Your task to perform on an android device: change the clock display to show seconds Image 0: 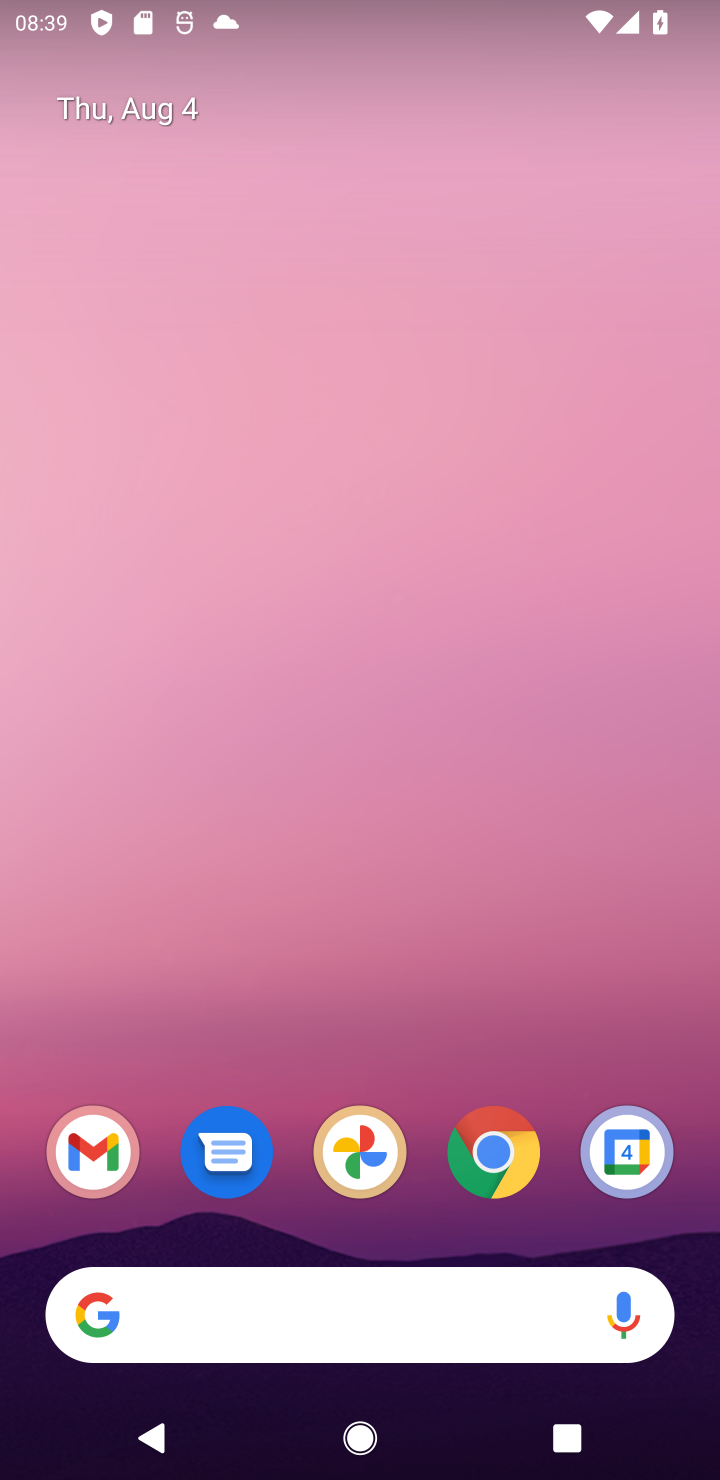
Step 0: drag from (501, 1472) to (540, 108)
Your task to perform on an android device: change the clock display to show seconds Image 1: 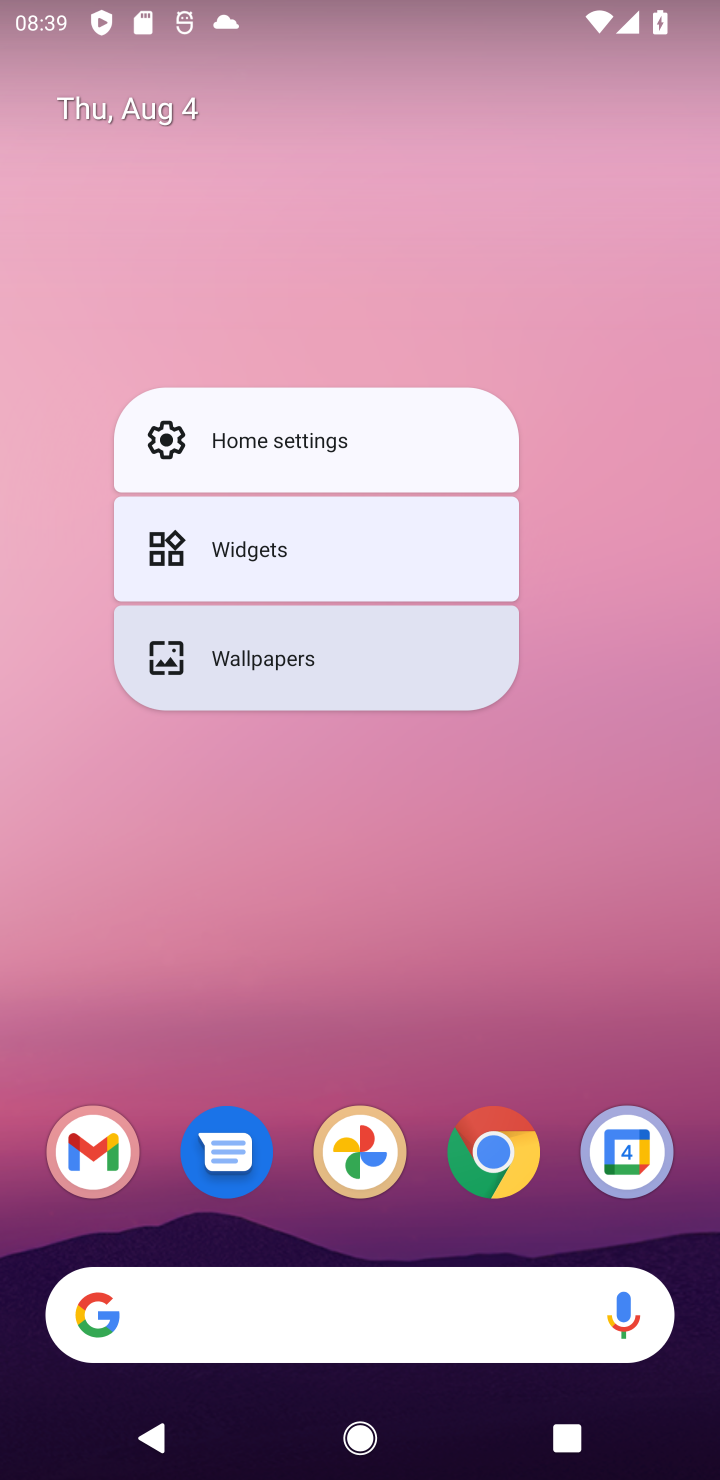
Step 1: drag from (356, 576) to (573, 31)
Your task to perform on an android device: change the clock display to show seconds Image 2: 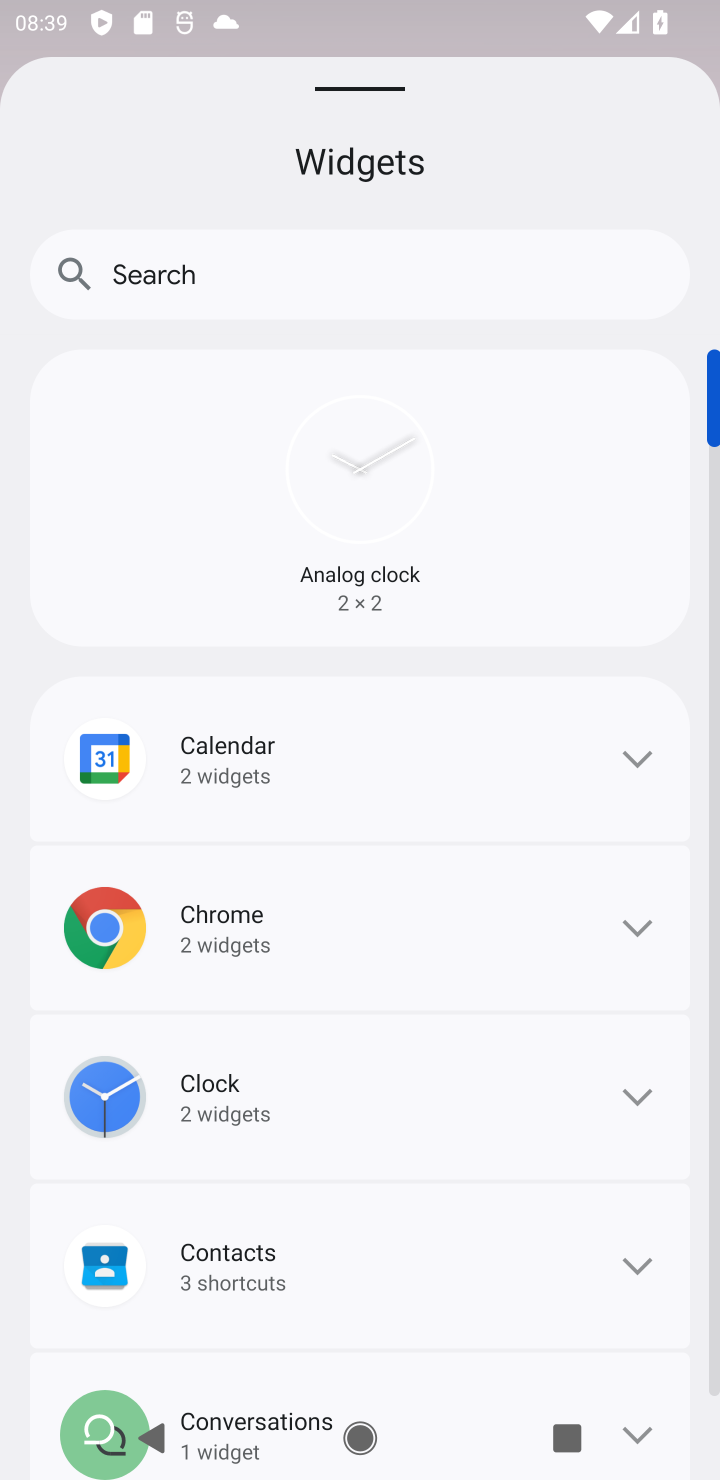
Step 2: press home button
Your task to perform on an android device: change the clock display to show seconds Image 3: 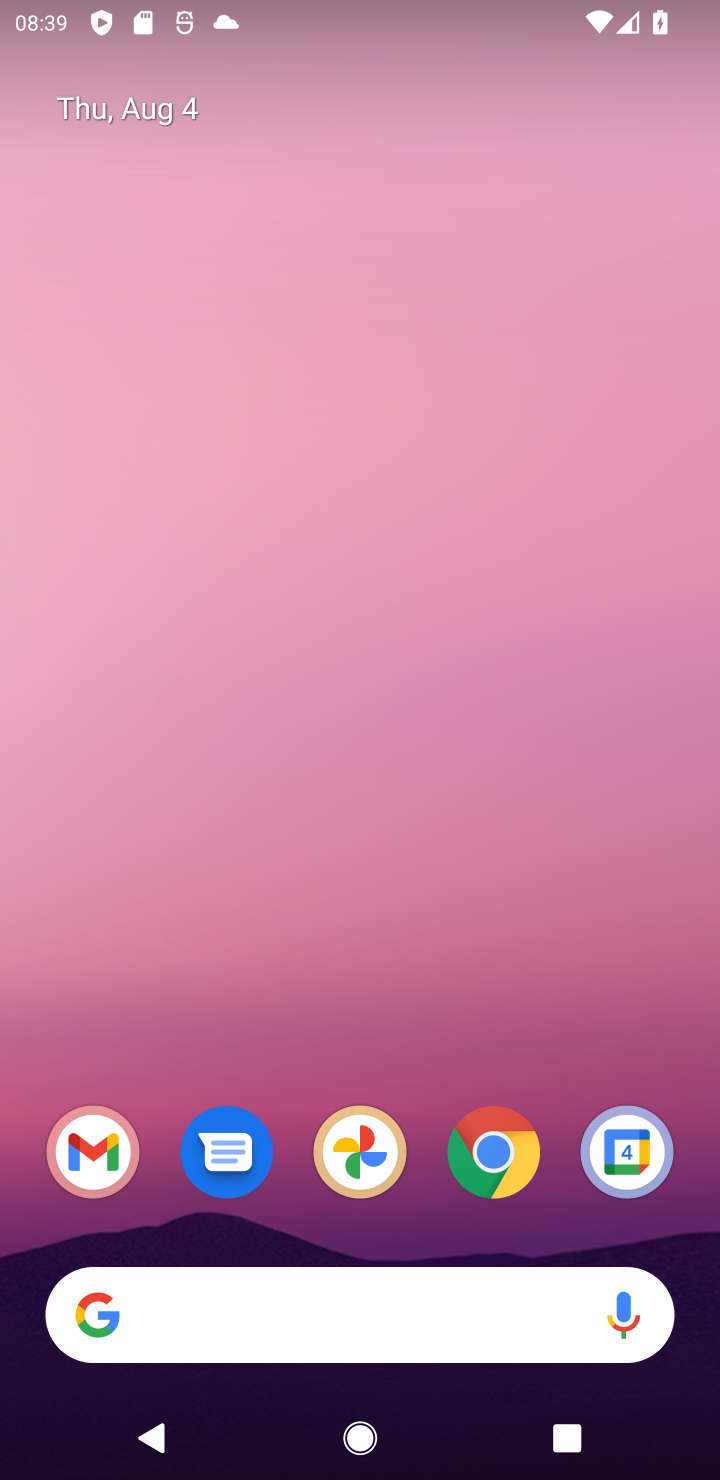
Step 3: drag from (42, 1144) to (438, 60)
Your task to perform on an android device: change the clock display to show seconds Image 4: 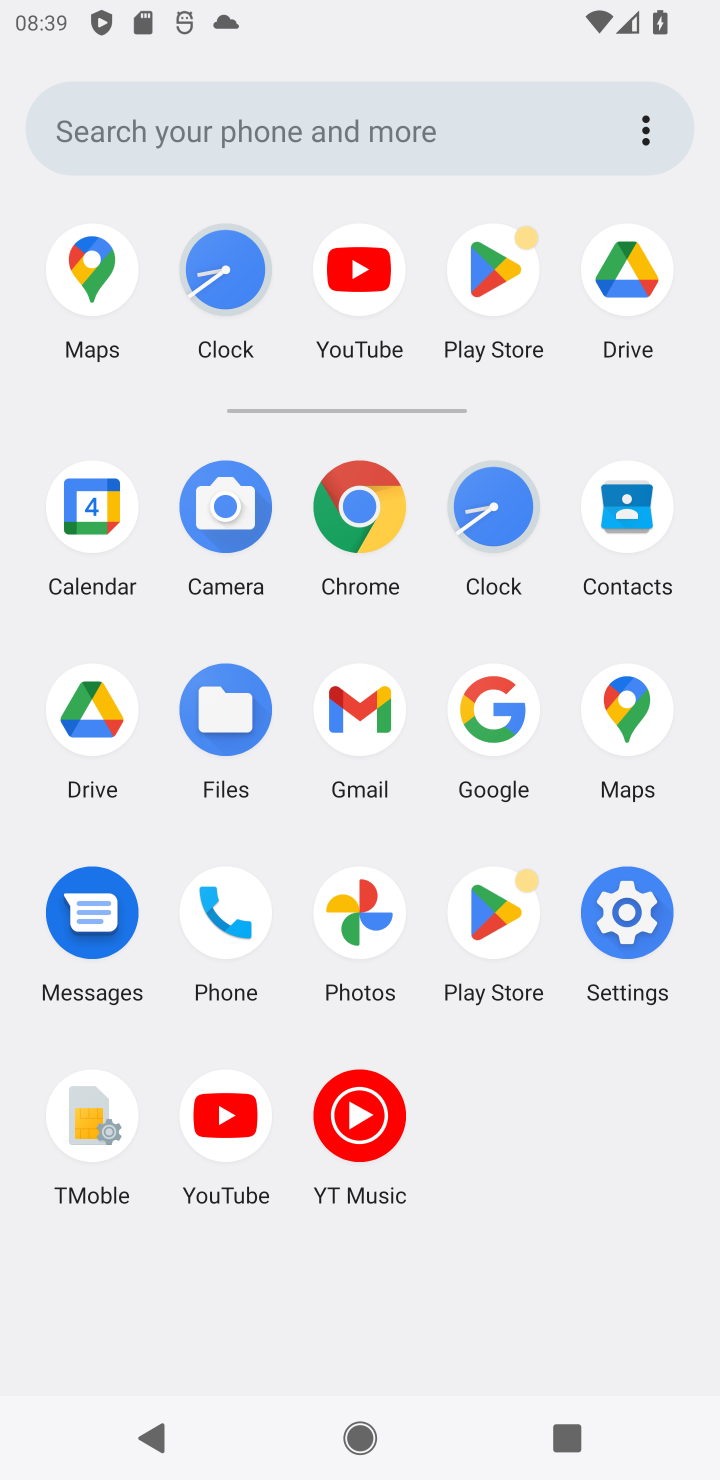
Step 4: click (500, 497)
Your task to perform on an android device: change the clock display to show seconds Image 5: 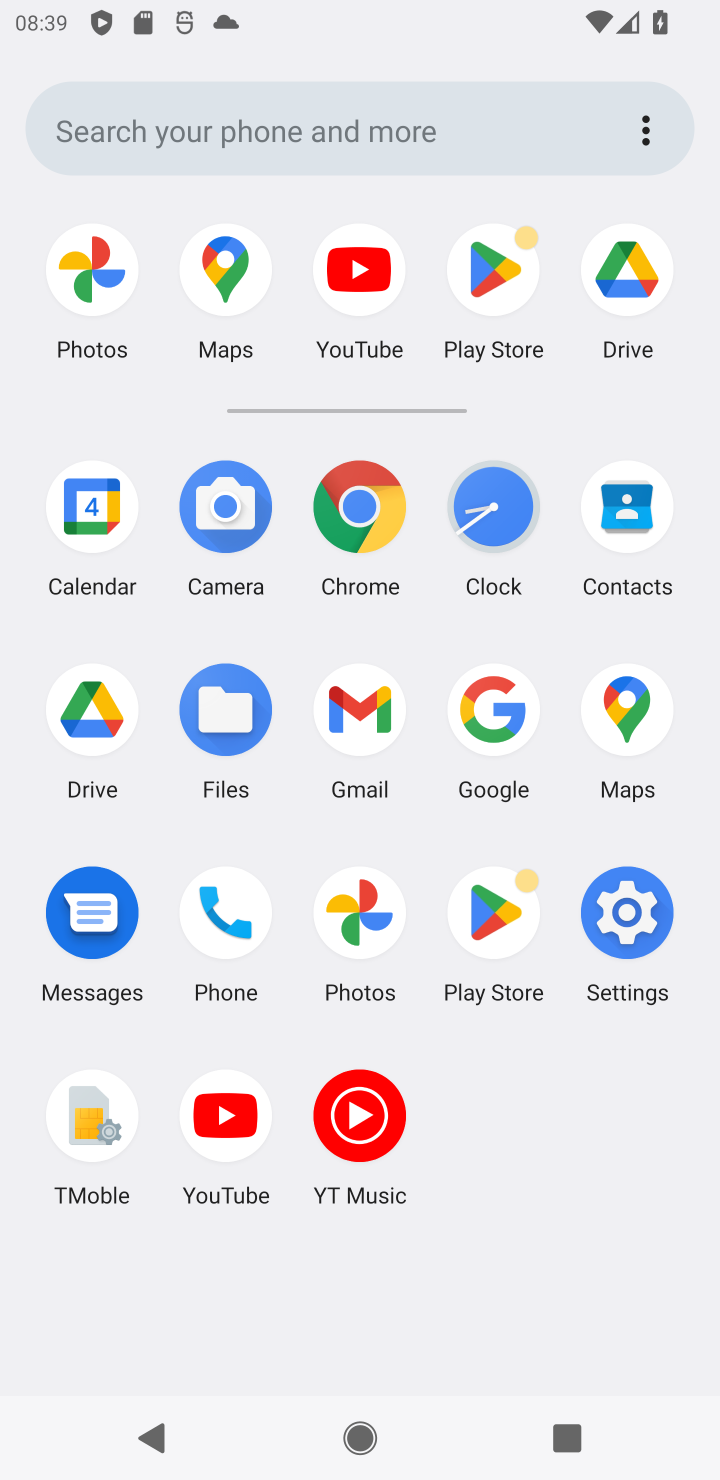
Step 5: click (479, 505)
Your task to perform on an android device: change the clock display to show seconds Image 6: 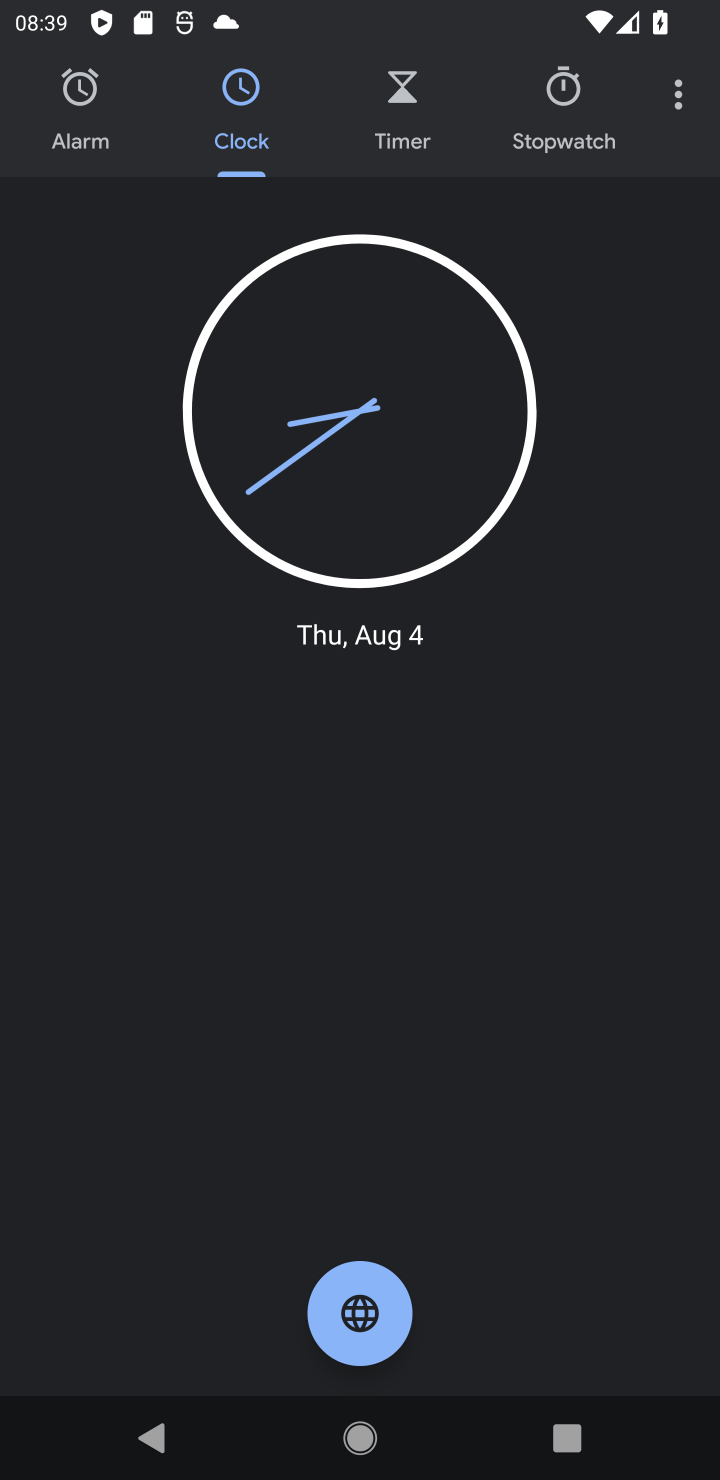
Step 6: click (672, 93)
Your task to perform on an android device: change the clock display to show seconds Image 7: 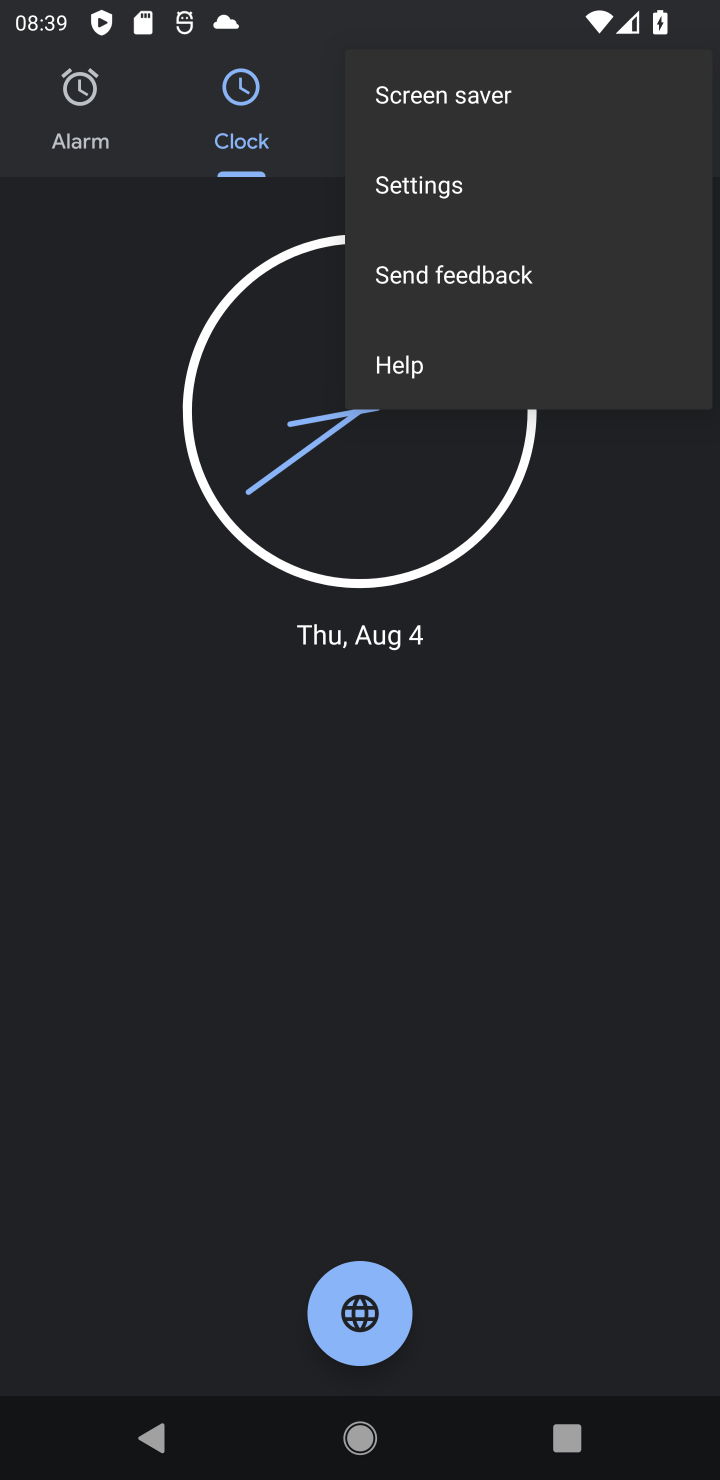
Step 7: click (511, 177)
Your task to perform on an android device: change the clock display to show seconds Image 8: 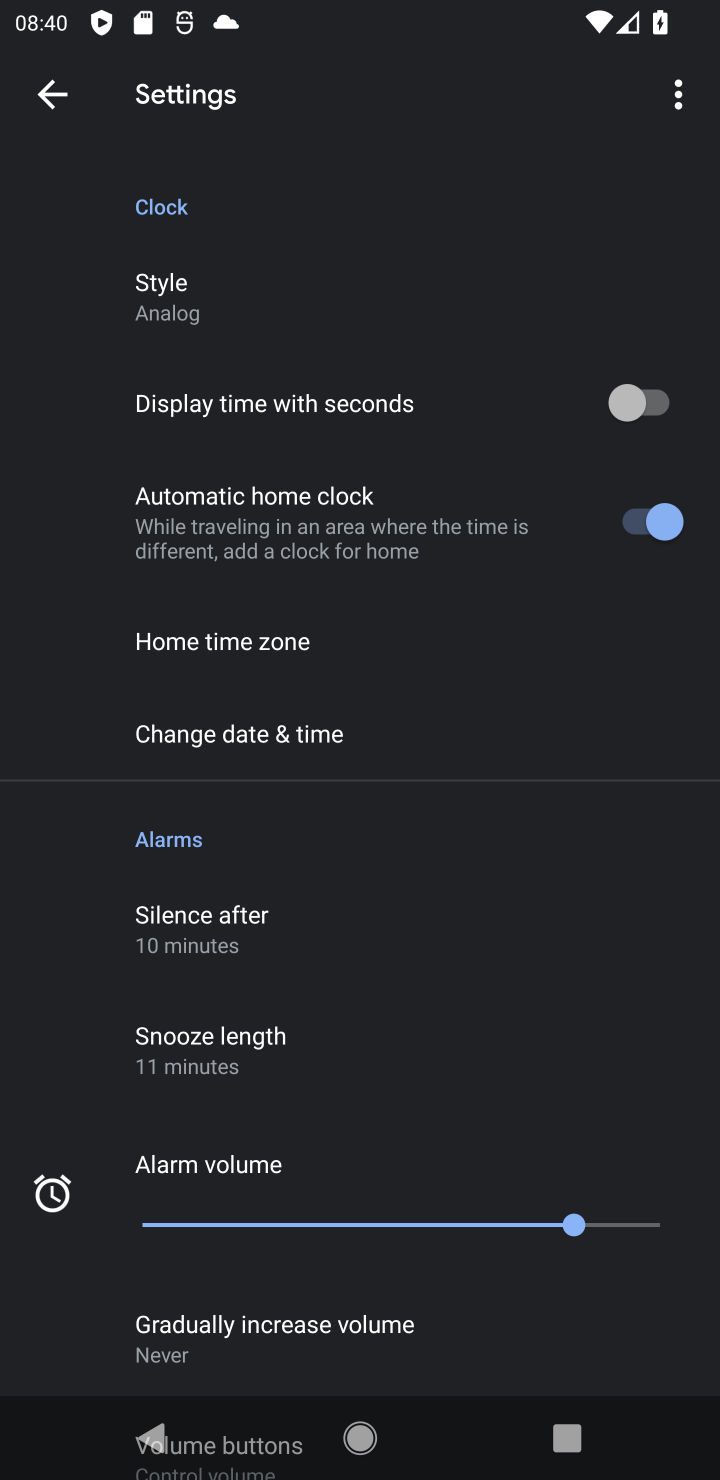
Step 8: task complete